Your task to perform on an android device: make emails show in primary in the gmail app Image 0: 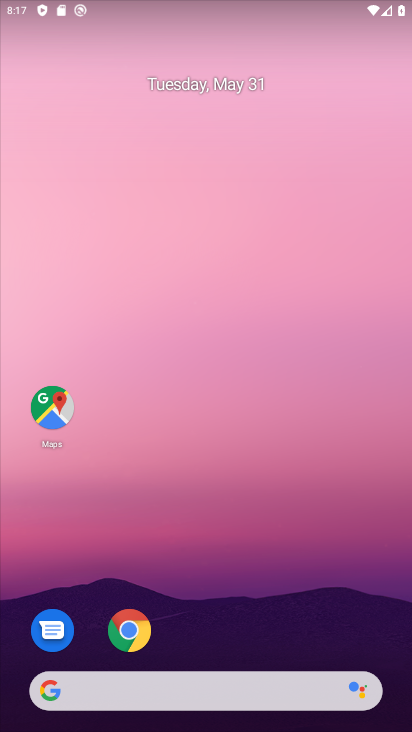
Step 0: drag from (248, 629) to (216, 35)
Your task to perform on an android device: make emails show in primary in the gmail app Image 1: 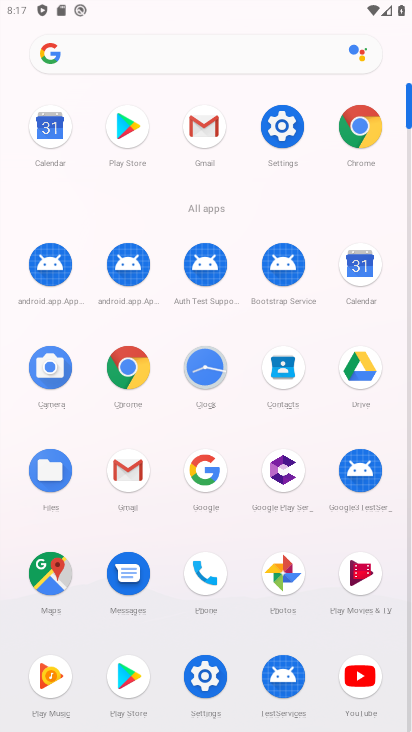
Step 1: click (200, 131)
Your task to perform on an android device: make emails show in primary in the gmail app Image 2: 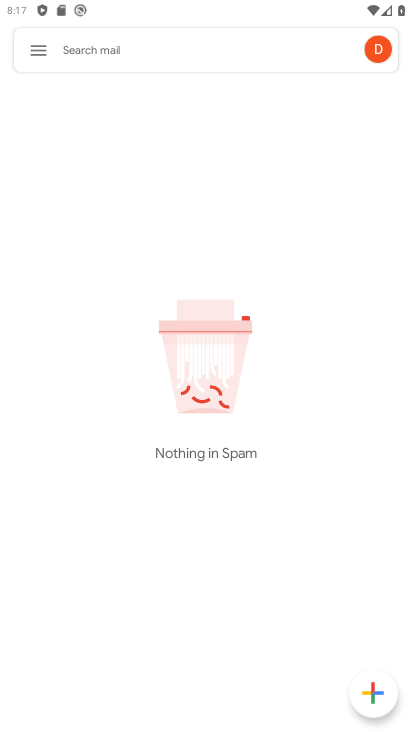
Step 2: click (38, 49)
Your task to perform on an android device: make emails show in primary in the gmail app Image 3: 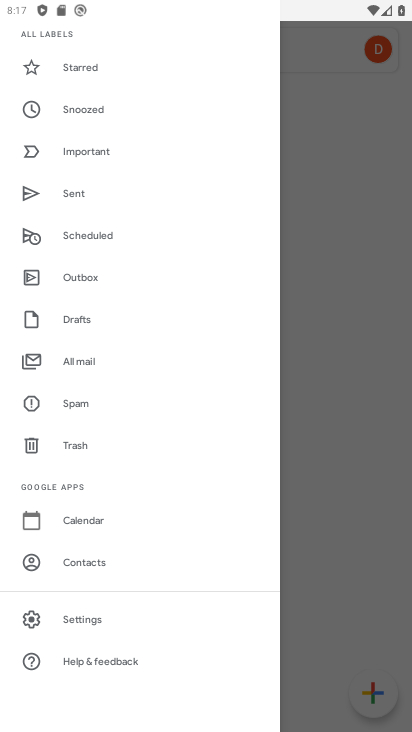
Step 3: click (91, 615)
Your task to perform on an android device: make emails show in primary in the gmail app Image 4: 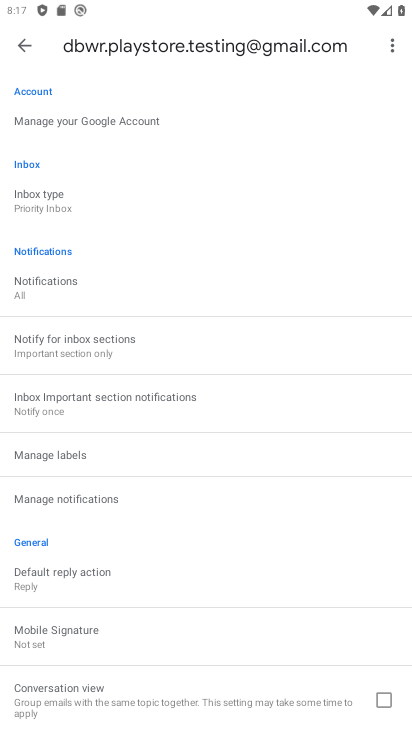
Step 4: click (21, 206)
Your task to perform on an android device: make emails show in primary in the gmail app Image 5: 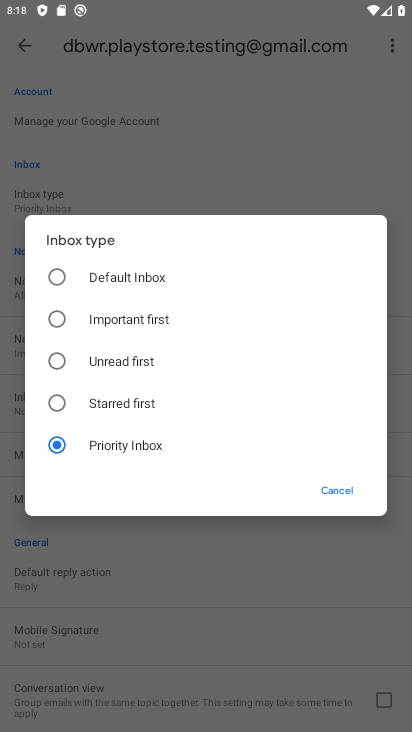
Step 5: task complete